Your task to perform on an android device: turn on showing notifications on the lock screen Image 0: 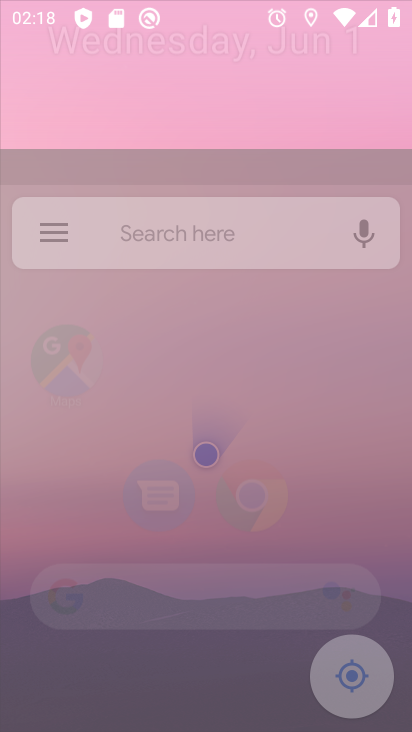
Step 0: press home button
Your task to perform on an android device: turn on showing notifications on the lock screen Image 1: 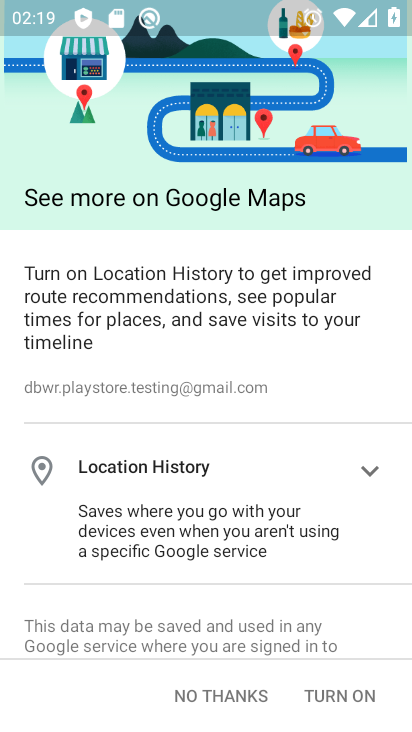
Step 1: press home button
Your task to perform on an android device: turn on showing notifications on the lock screen Image 2: 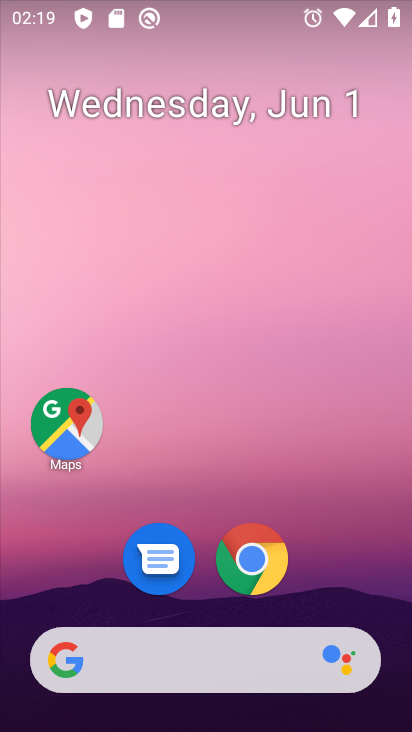
Step 2: drag from (319, 608) to (324, 229)
Your task to perform on an android device: turn on showing notifications on the lock screen Image 3: 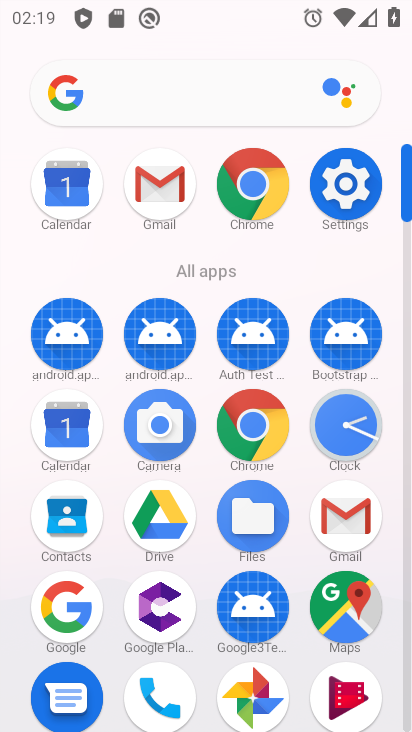
Step 3: click (341, 183)
Your task to perform on an android device: turn on showing notifications on the lock screen Image 4: 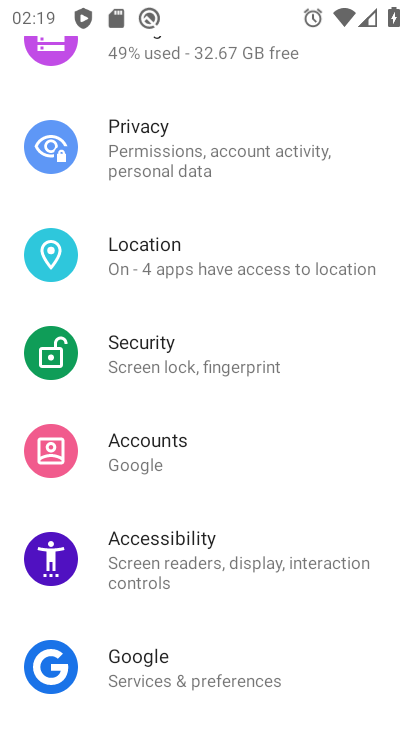
Step 4: drag from (264, 153) to (245, 619)
Your task to perform on an android device: turn on showing notifications on the lock screen Image 5: 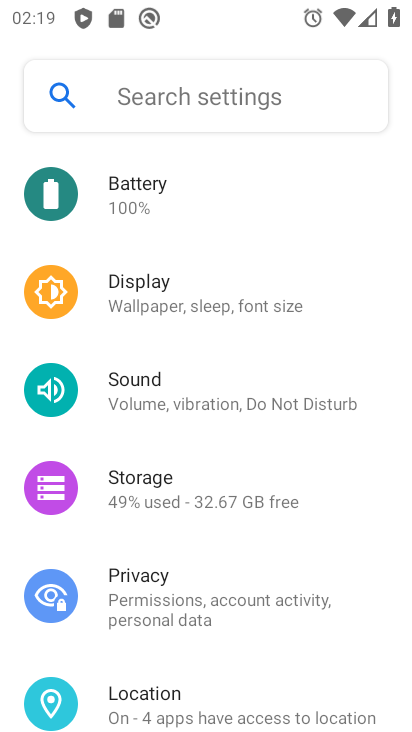
Step 5: drag from (253, 237) to (224, 586)
Your task to perform on an android device: turn on showing notifications on the lock screen Image 6: 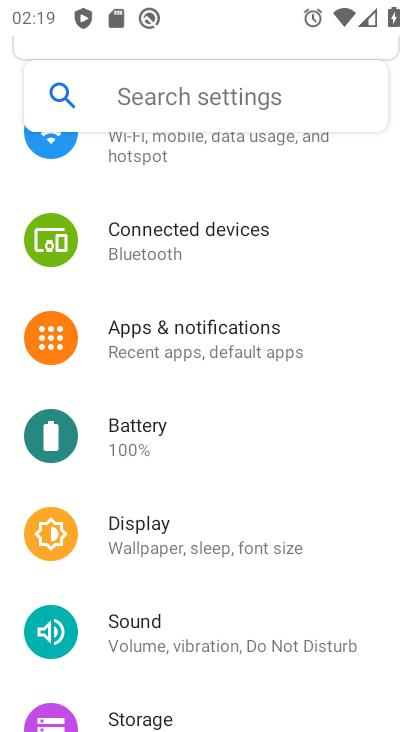
Step 6: click (181, 334)
Your task to perform on an android device: turn on showing notifications on the lock screen Image 7: 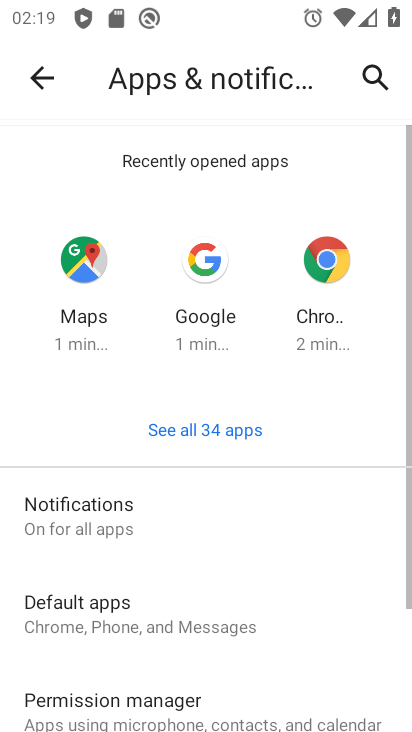
Step 7: click (77, 508)
Your task to perform on an android device: turn on showing notifications on the lock screen Image 8: 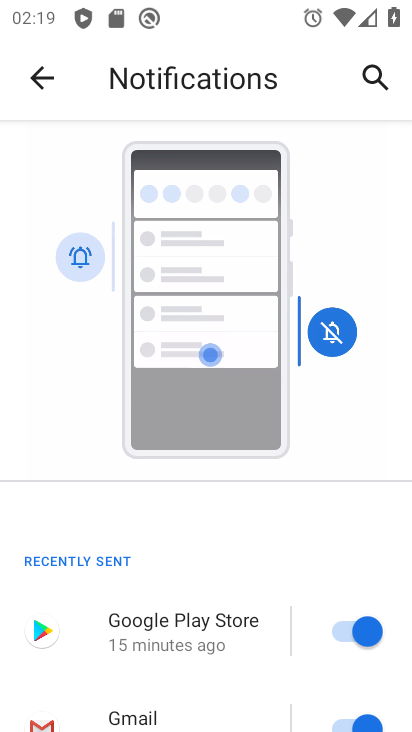
Step 8: drag from (229, 529) to (238, 75)
Your task to perform on an android device: turn on showing notifications on the lock screen Image 9: 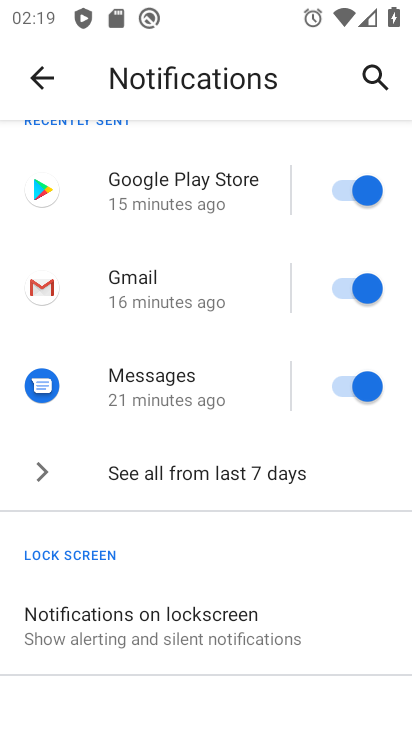
Step 9: click (146, 619)
Your task to perform on an android device: turn on showing notifications on the lock screen Image 10: 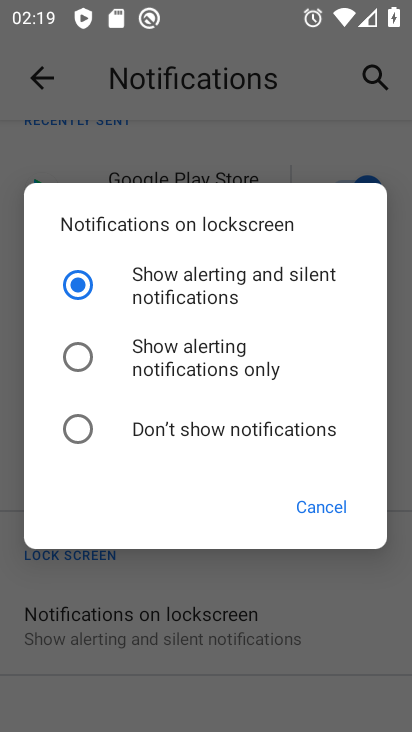
Step 10: task complete